Your task to perform on an android device: turn vacation reply on in the gmail app Image 0: 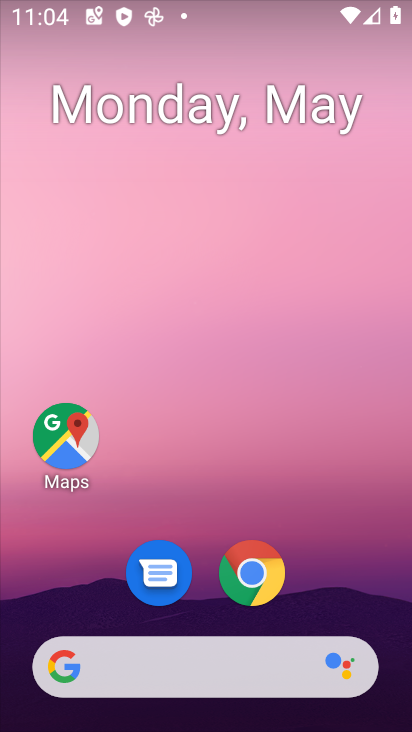
Step 0: drag from (359, 597) to (261, 19)
Your task to perform on an android device: turn vacation reply on in the gmail app Image 1: 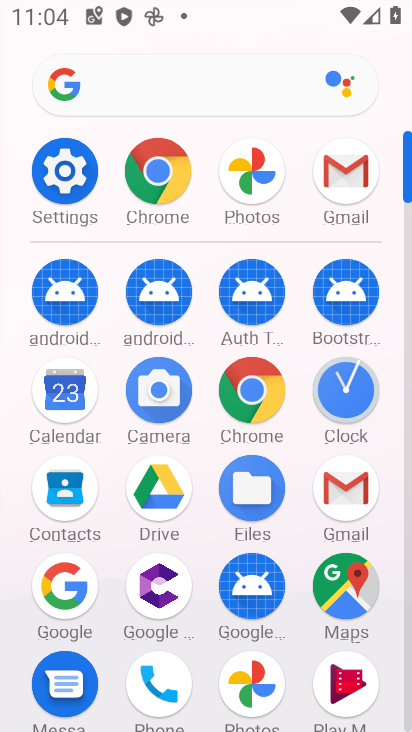
Step 1: click (348, 495)
Your task to perform on an android device: turn vacation reply on in the gmail app Image 2: 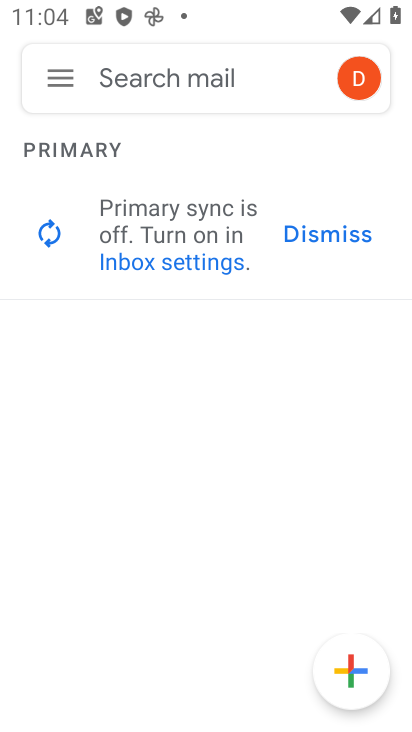
Step 2: click (65, 92)
Your task to perform on an android device: turn vacation reply on in the gmail app Image 3: 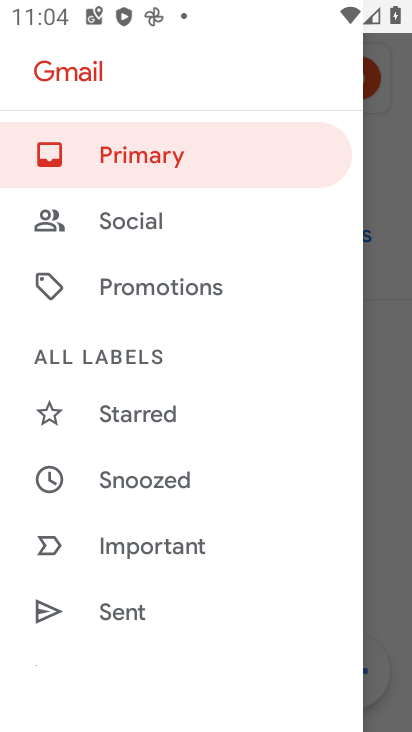
Step 3: drag from (249, 577) to (243, 91)
Your task to perform on an android device: turn vacation reply on in the gmail app Image 4: 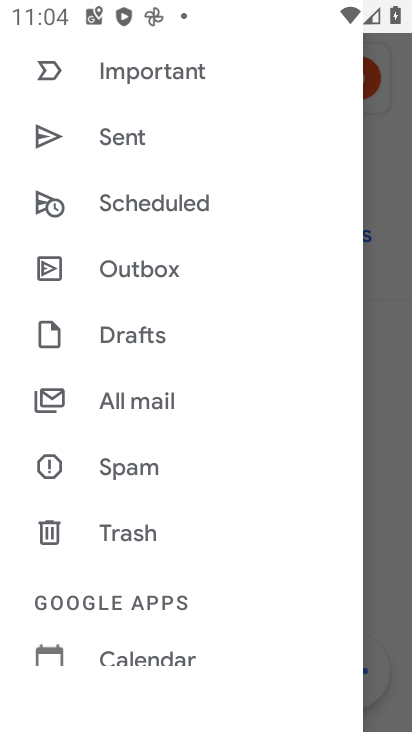
Step 4: drag from (201, 585) to (192, 26)
Your task to perform on an android device: turn vacation reply on in the gmail app Image 5: 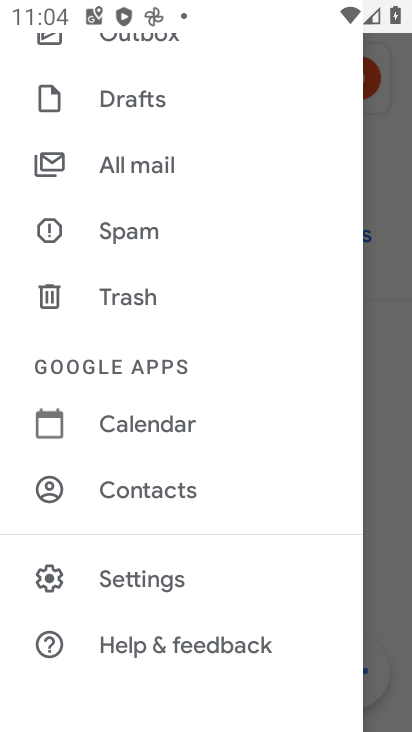
Step 5: click (168, 533)
Your task to perform on an android device: turn vacation reply on in the gmail app Image 6: 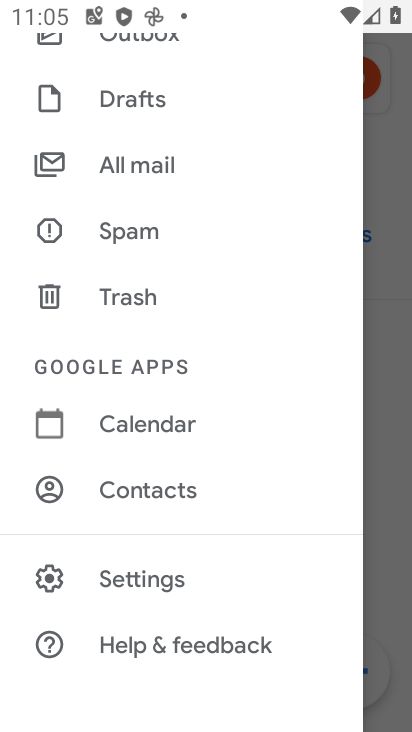
Step 6: click (161, 592)
Your task to perform on an android device: turn vacation reply on in the gmail app Image 7: 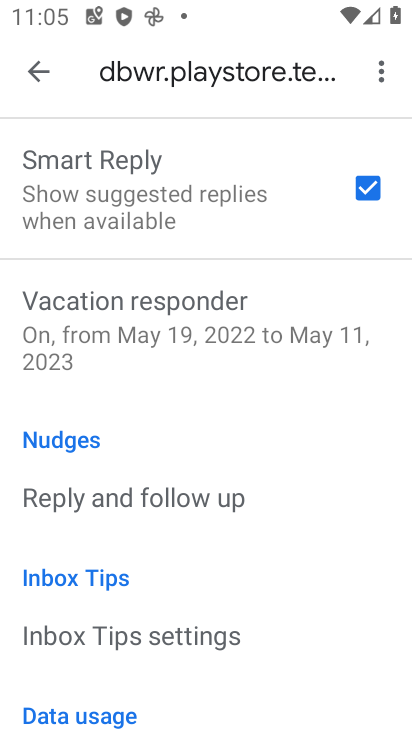
Step 7: click (197, 340)
Your task to perform on an android device: turn vacation reply on in the gmail app Image 8: 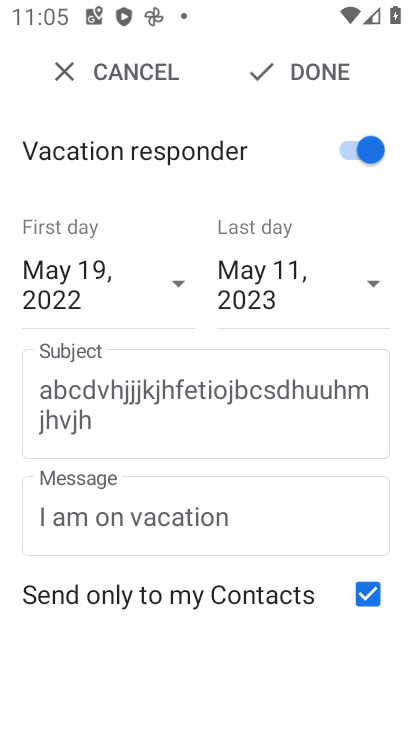
Step 8: click (307, 58)
Your task to perform on an android device: turn vacation reply on in the gmail app Image 9: 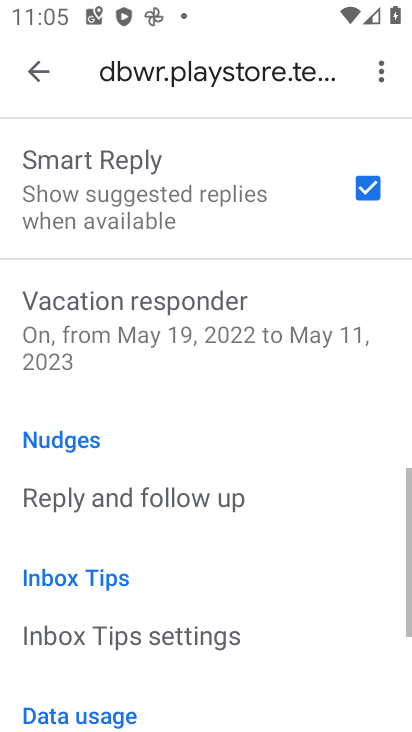
Step 9: task complete